Your task to perform on an android device: turn on notifications settings in the gmail app Image 0: 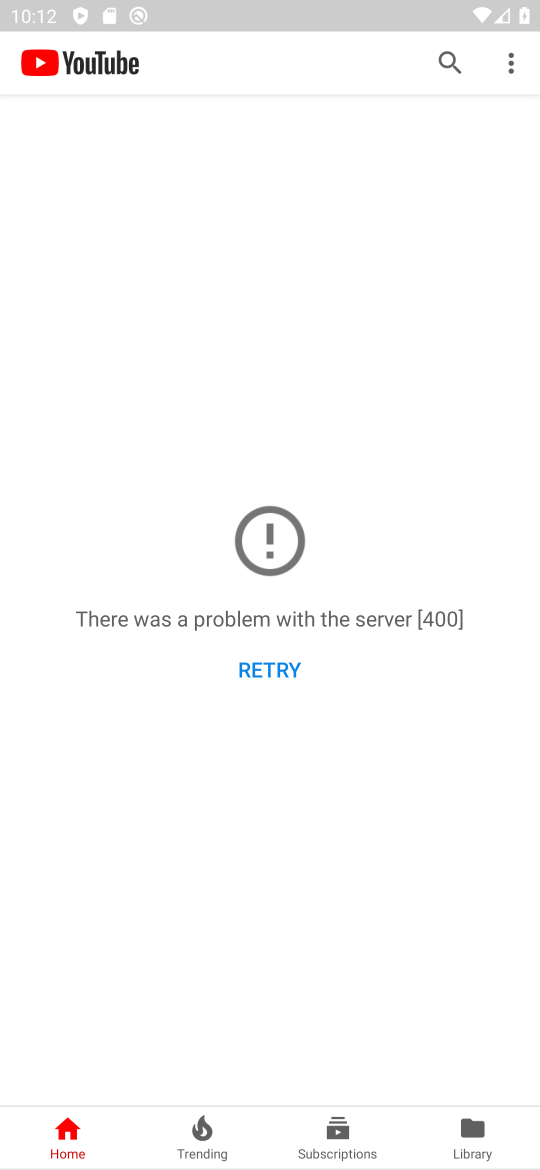
Step 0: press home button
Your task to perform on an android device: turn on notifications settings in the gmail app Image 1: 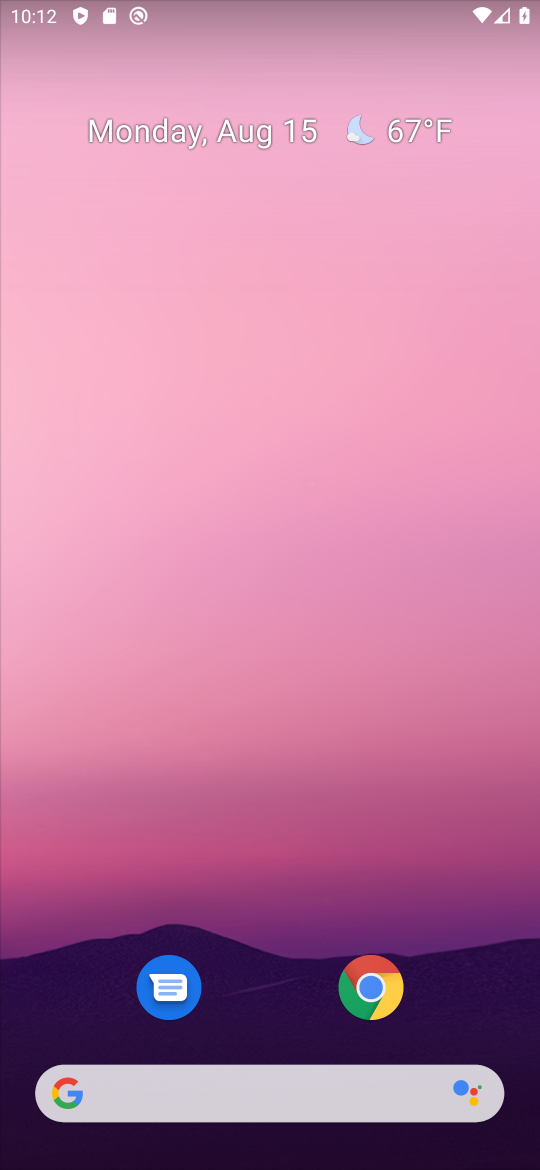
Step 1: drag from (296, 1051) to (136, 114)
Your task to perform on an android device: turn on notifications settings in the gmail app Image 2: 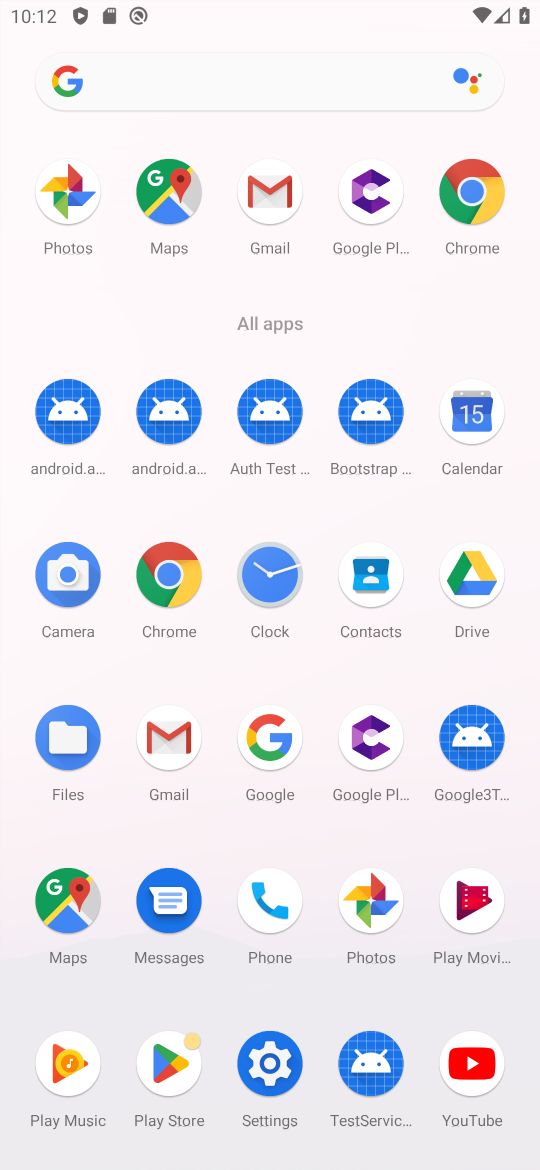
Step 2: click (162, 725)
Your task to perform on an android device: turn on notifications settings in the gmail app Image 3: 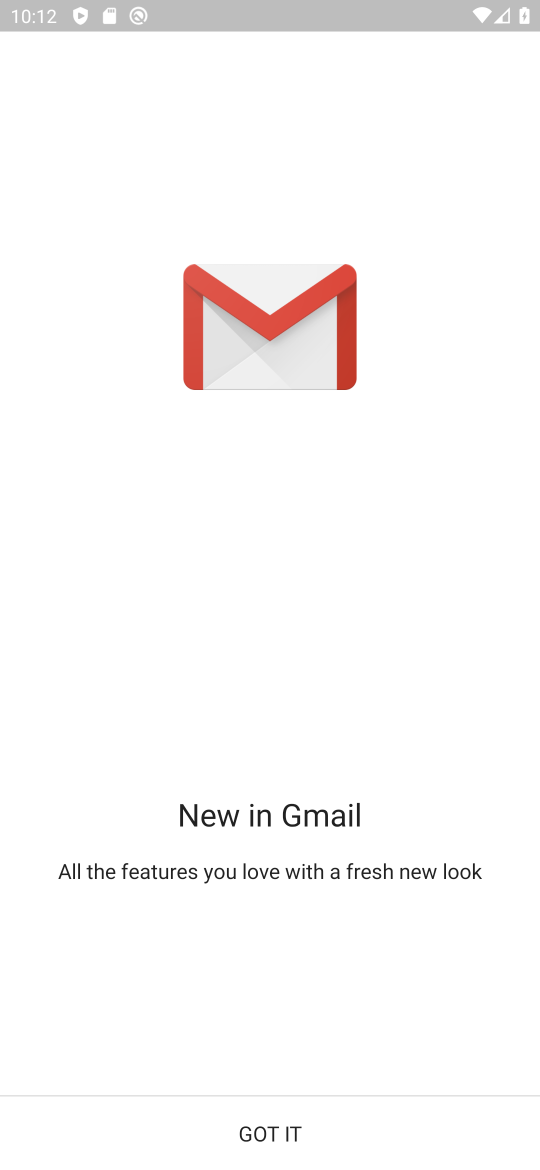
Step 3: click (327, 1137)
Your task to perform on an android device: turn on notifications settings in the gmail app Image 4: 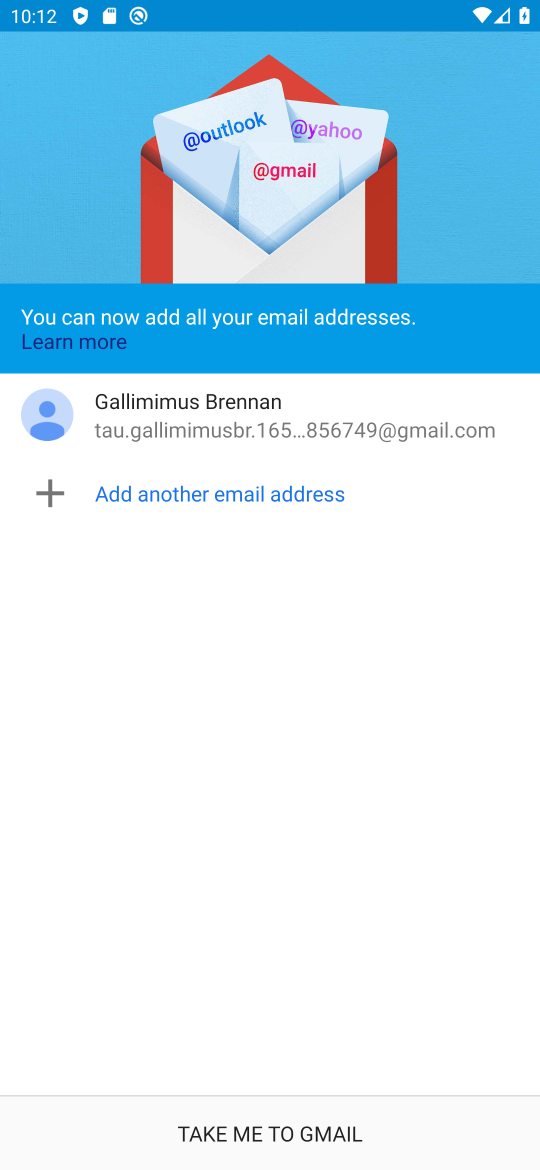
Step 4: click (326, 1136)
Your task to perform on an android device: turn on notifications settings in the gmail app Image 5: 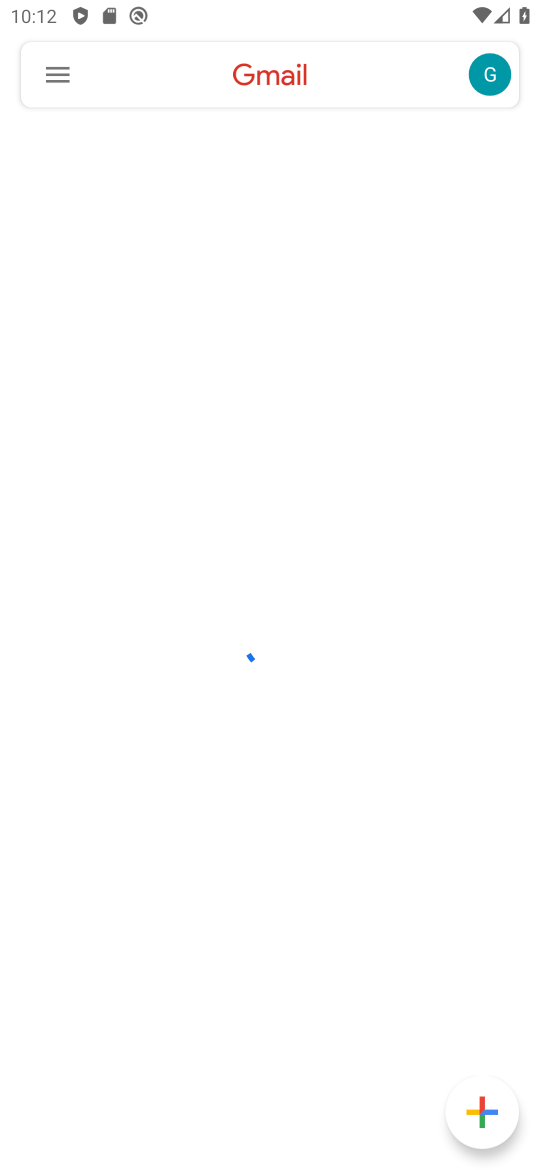
Step 5: click (47, 73)
Your task to perform on an android device: turn on notifications settings in the gmail app Image 6: 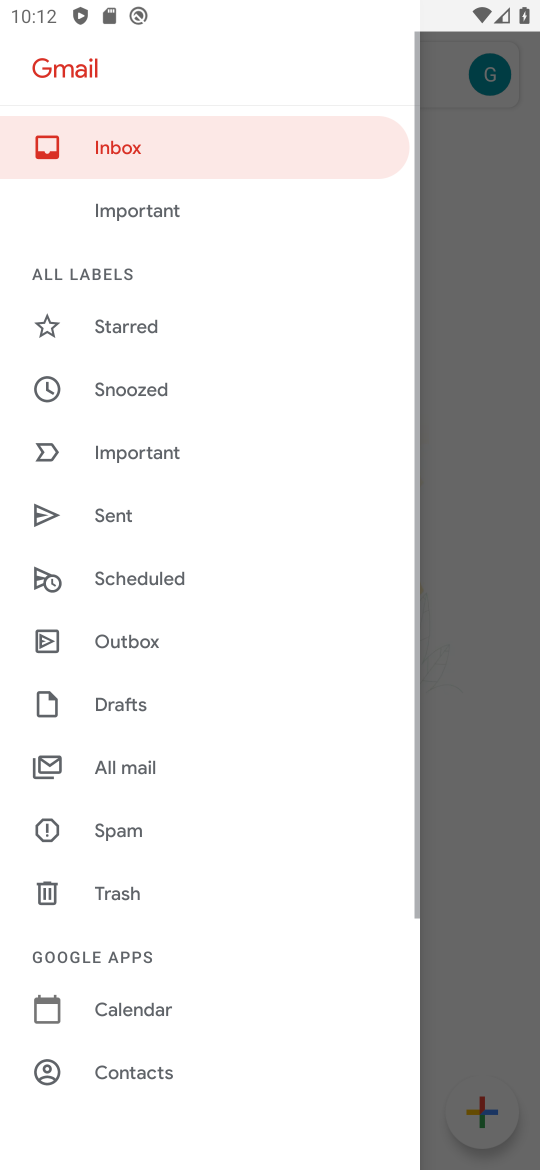
Step 6: drag from (152, 1113) to (165, 70)
Your task to perform on an android device: turn on notifications settings in the gmail app Image 7: 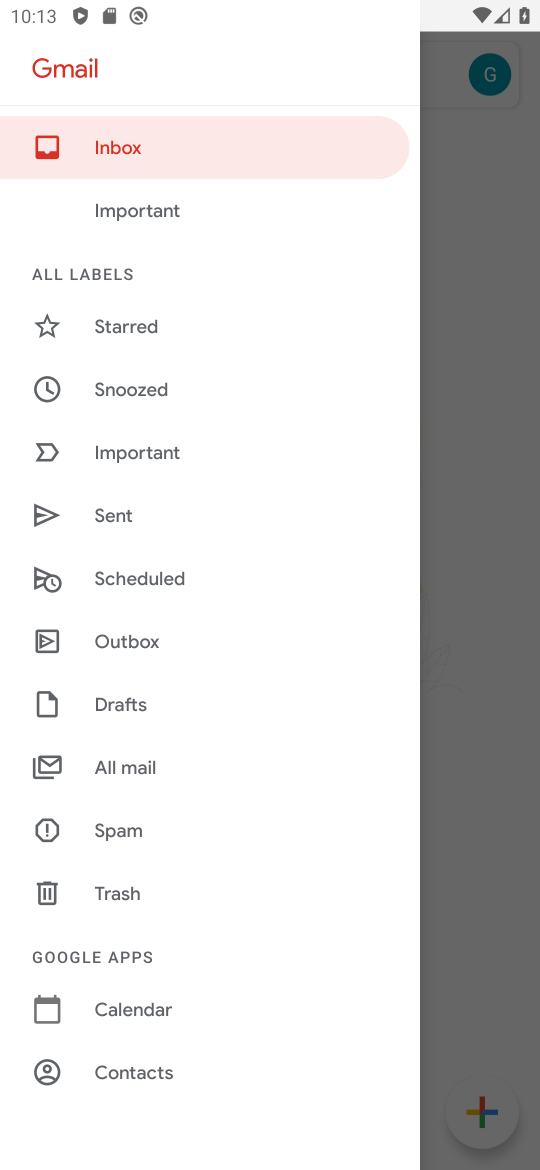
Step 7: drag from (163, 1043) to (141, 352)
Your task to perform on an android device: turn on notifications settings in the gmail app Image 8: 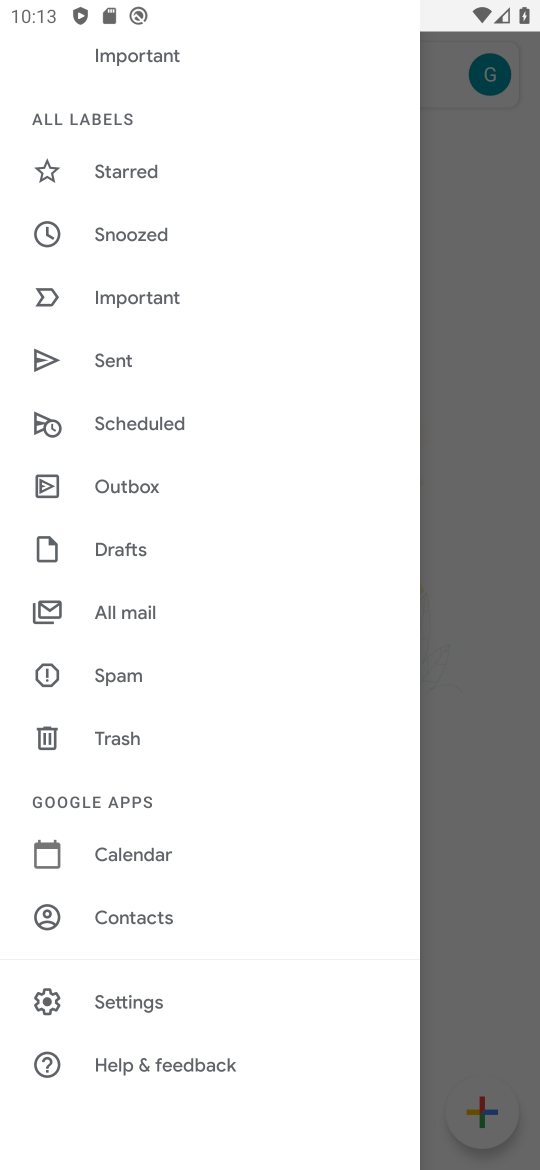
Step 8: click (118, 997)
Your task to perform on an android device: turn on notifications settings in the gmail app Image 9: 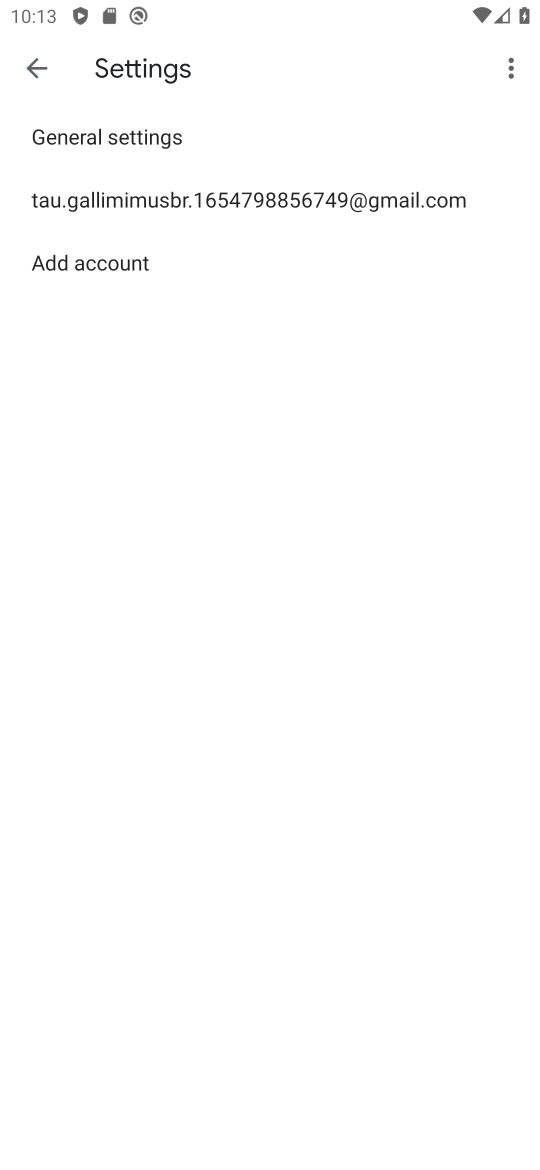
Step 9: click (60, 145)
Your task to perform on an android device: turn on notifications settings in the gmail app Image 10: 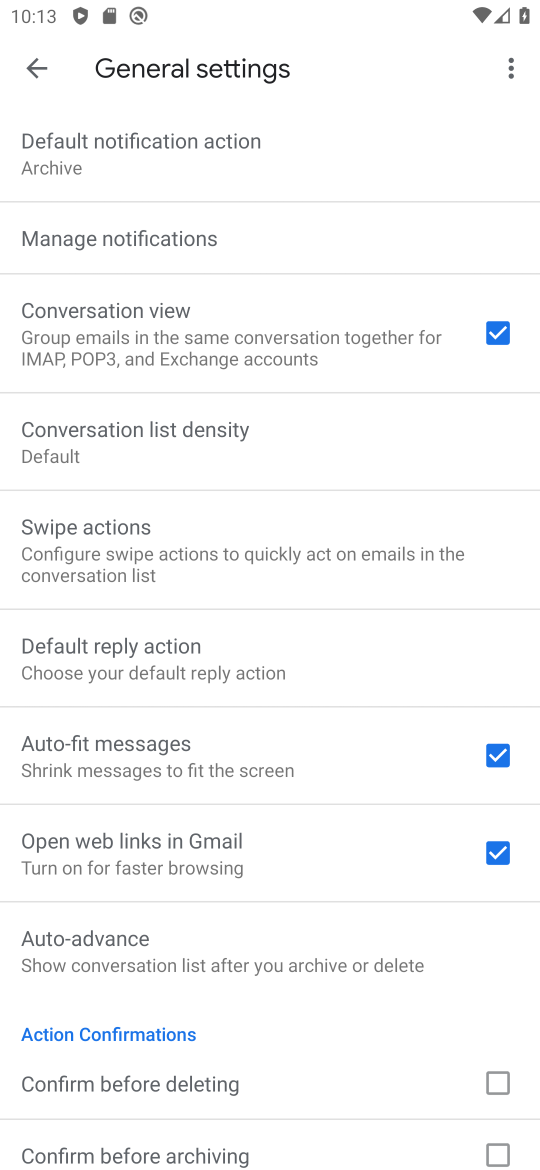
Step 10: click (142, 248)
Your task to perform on an android device: turn on notifications settings in the gmail app Image 11: 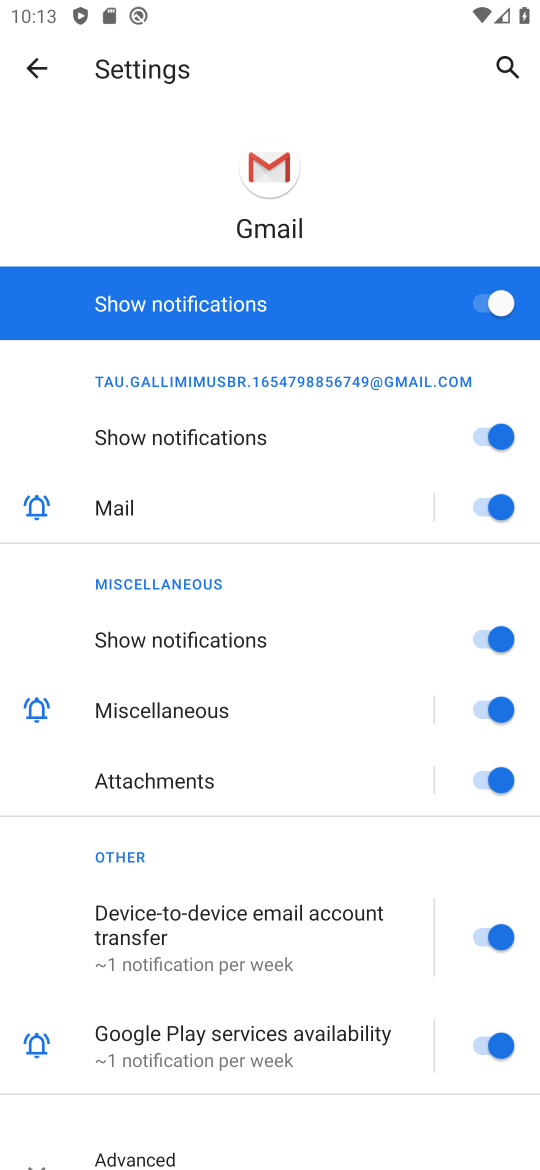
Step 11: task complete